Your task to perform on an android device: change timer sound Image 0: 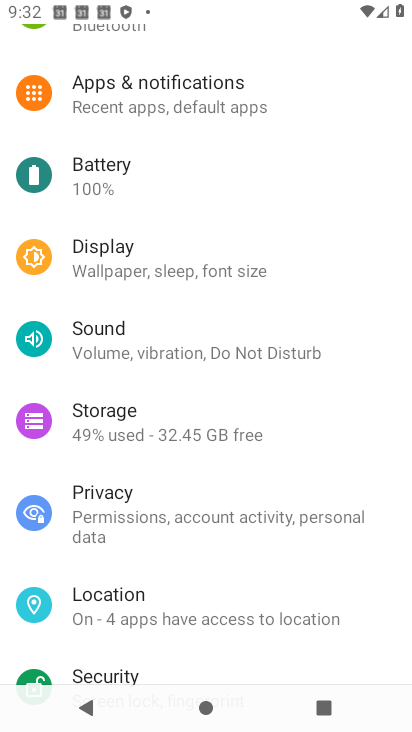
Step 0: press home button
Your task to perform on an android device: change timer sound Image 1: 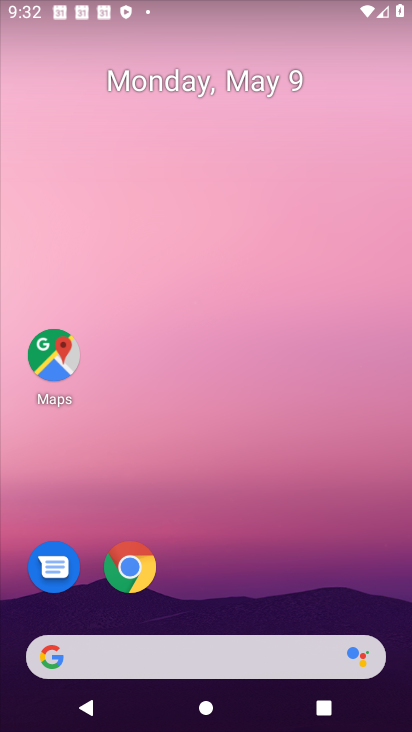
Step 1: drag from (199, 633) to (182, 110)
Your task to perform on an android device: change timer sound Image 2: 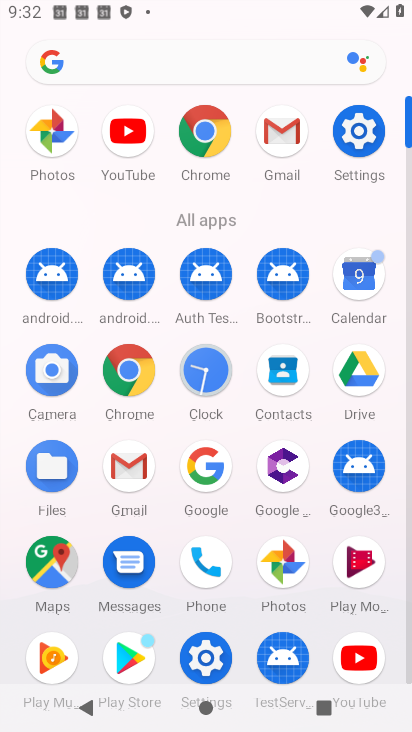
Step 2: click (202, 374)
Your task to perform on an android device: change timer sound Image 3: 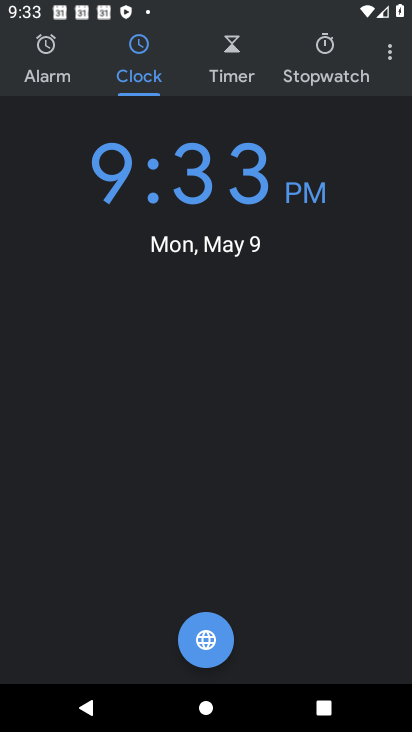
Step 3: click (393, 65)
Your task to perform on an android device: change timer sound Image 4: 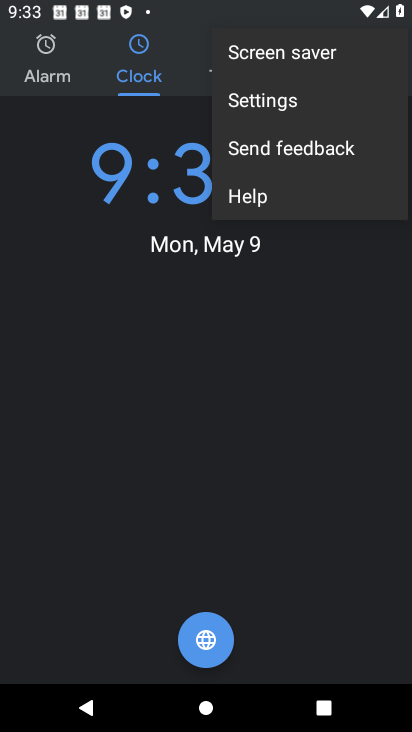
Step 4: click (277, 105)
Your task to perform on an android device: change timer sound Image 5: 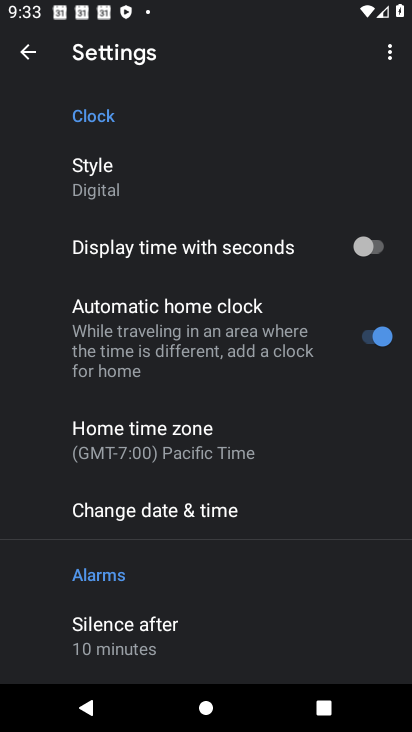
Step 5: drag from (239, 634) to (186, 154)
Your task to perform on an android device: change timer sound Image 6: 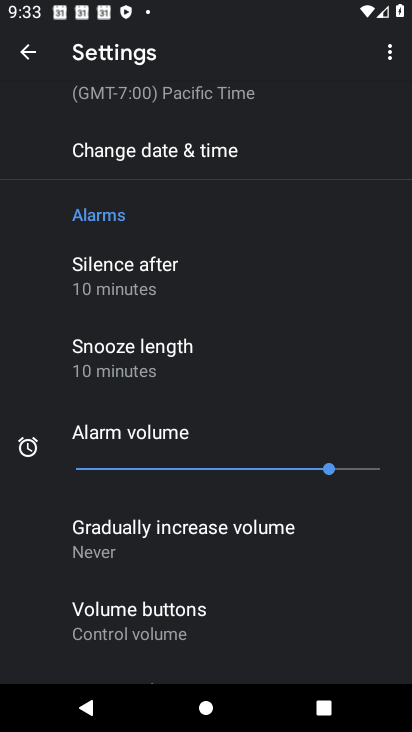
Step 6: drag from (226, 574) to (150, 140)
Your task to perform on an android device: change timer sound Image 7: 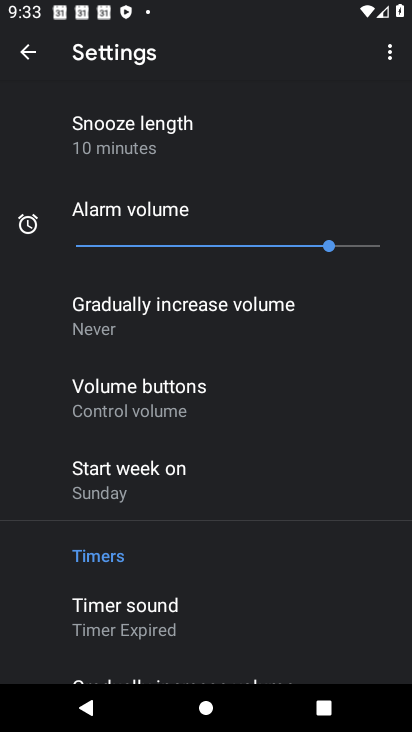
Step 7: click (148, 613)
Your task to perform on an android device: change timer sound Image 8: 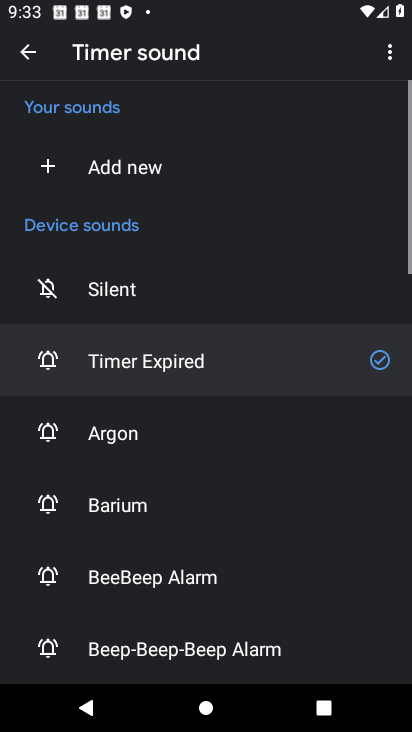
Step 8: click (178, 649)
Your task to perform on an android device: change timer sound Image 9: 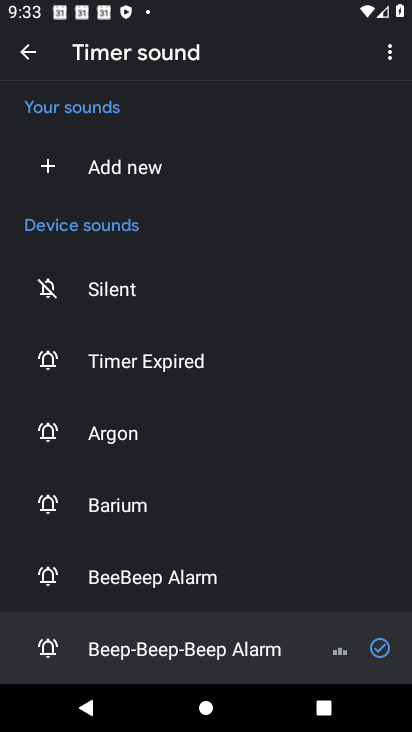
Step 9: task complete